Your task to perform on an android device: star an email in the gmail app Image 0: 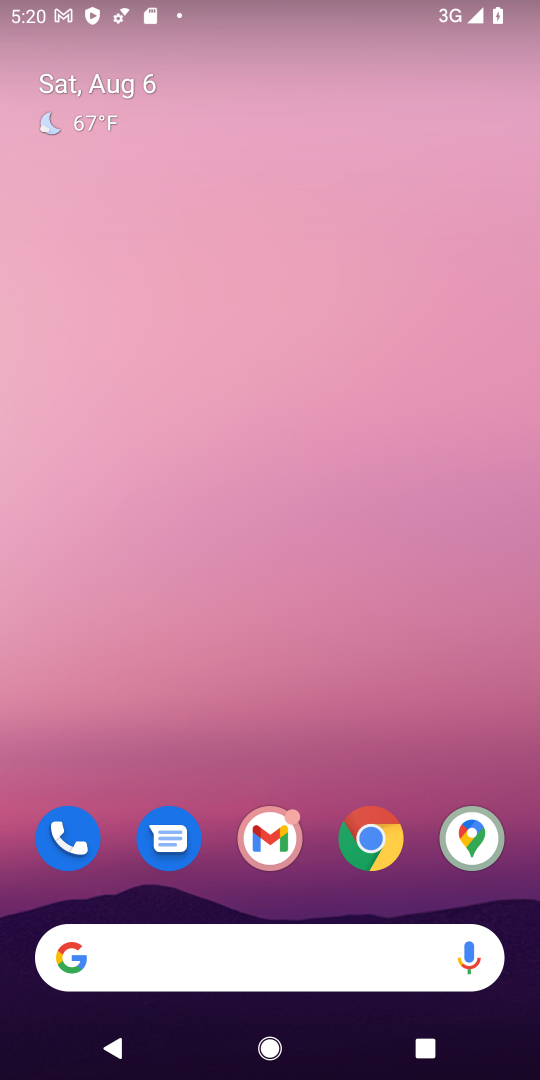
Step 0: click (266, 844)
Your task to perform on an android device: star an email in the gmail app Image 1: 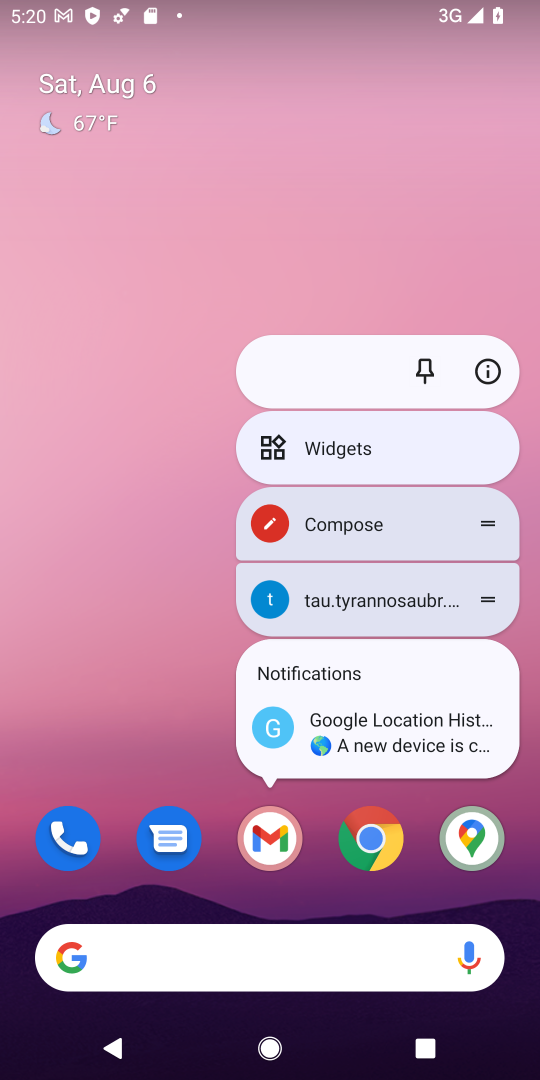
Step 1: drag from (147, 767) to (188, 50)
Your task to perform on an android device: star an email in the gmail app Image 2: 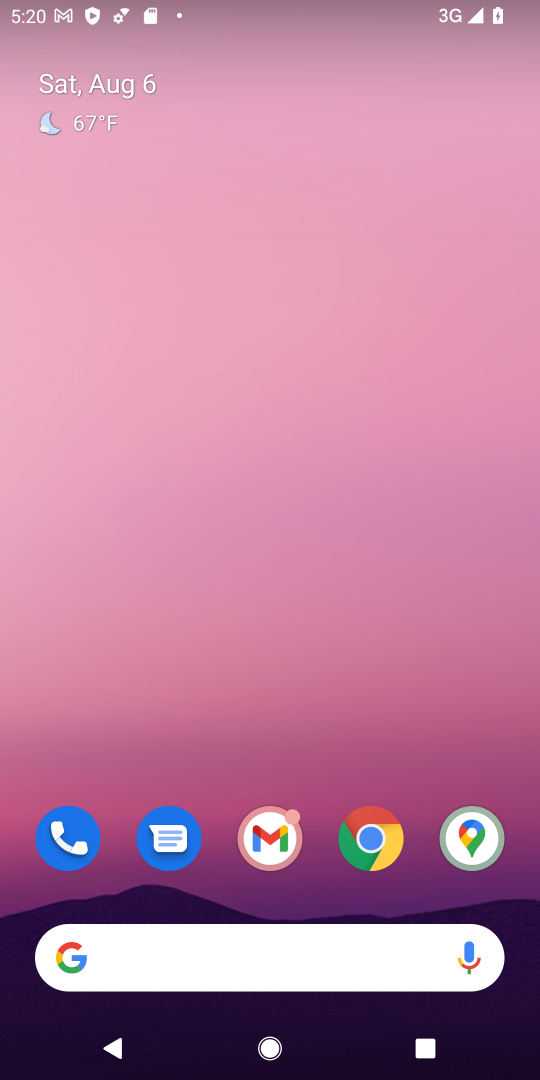
Step 2: drag from (326, 650) to (314, 13)
Your task to perform on an android device: star an email in the gmail app Image 3: 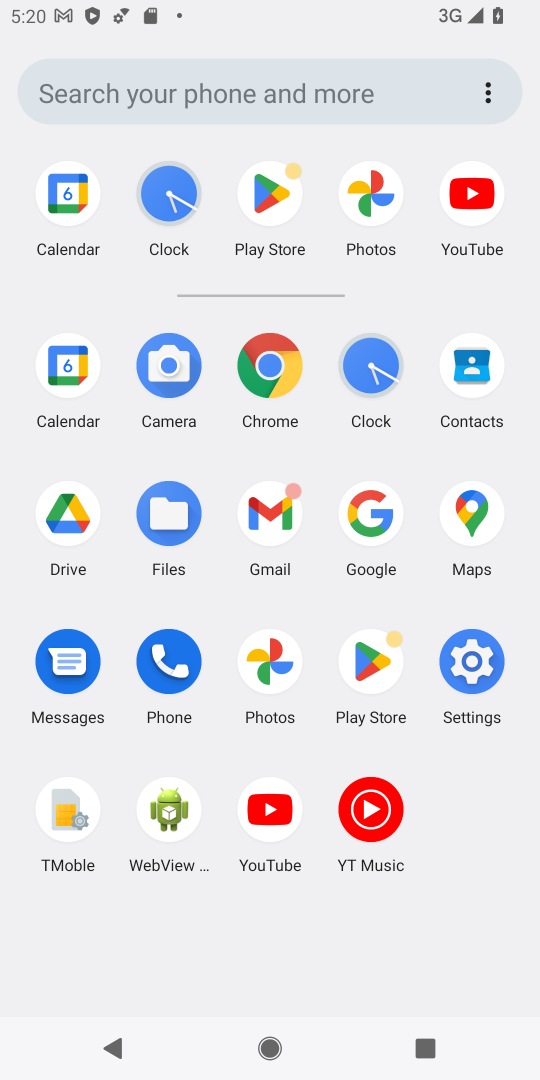
Step 3: click (282, 499)
Your task to perform on an android device: star an email in the gmail app Image 4: 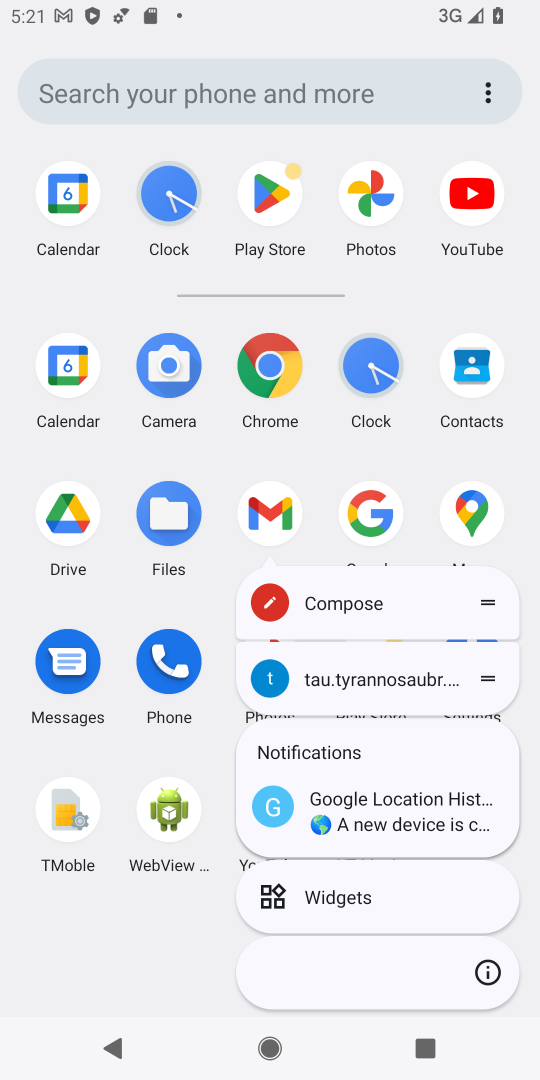
Step 4: click (297, 515)
Your task to perform on an android device: star an email in the gmail app Image 5: 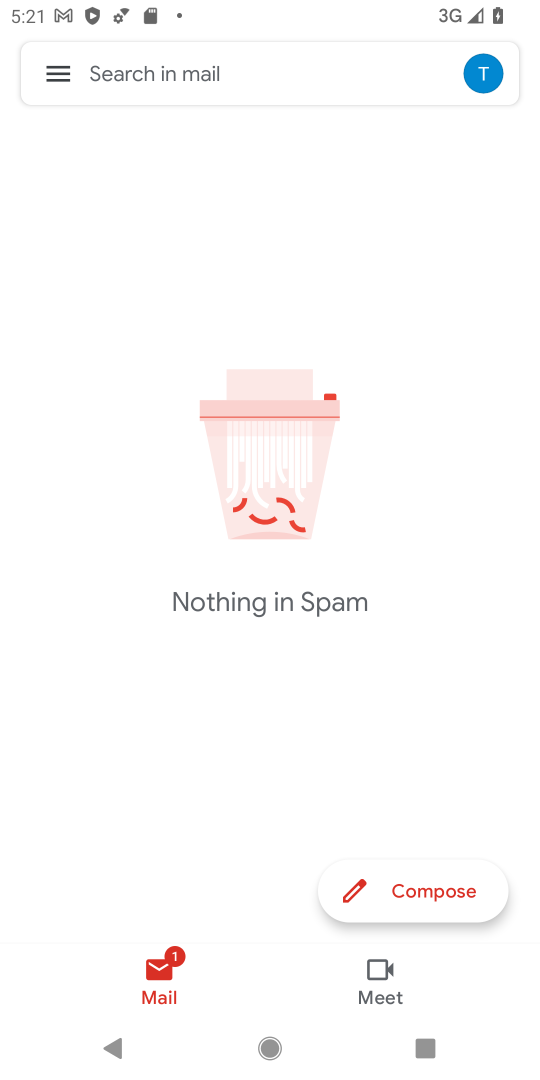
Step 5: click (72, 93)
Your task to perform on an android device: star an email in the gmail app Image 6: 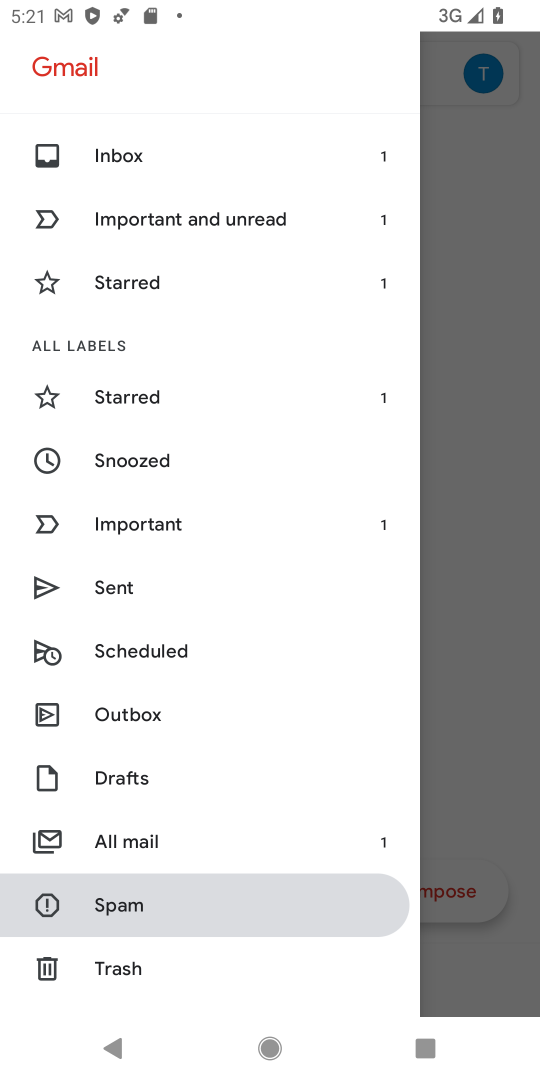
Step 6: click (306, 159)
Your task to perform on an android device: star an email in the gmail app Image 7: 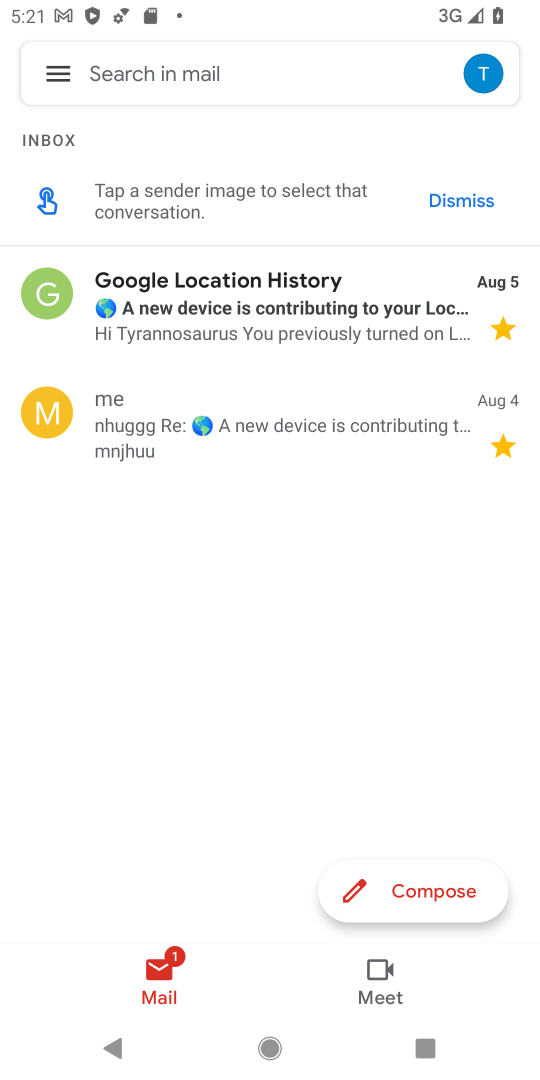
Step 7: click (326, 419)
Your task to perform on an android device: star an email in the gmail app Image 8: 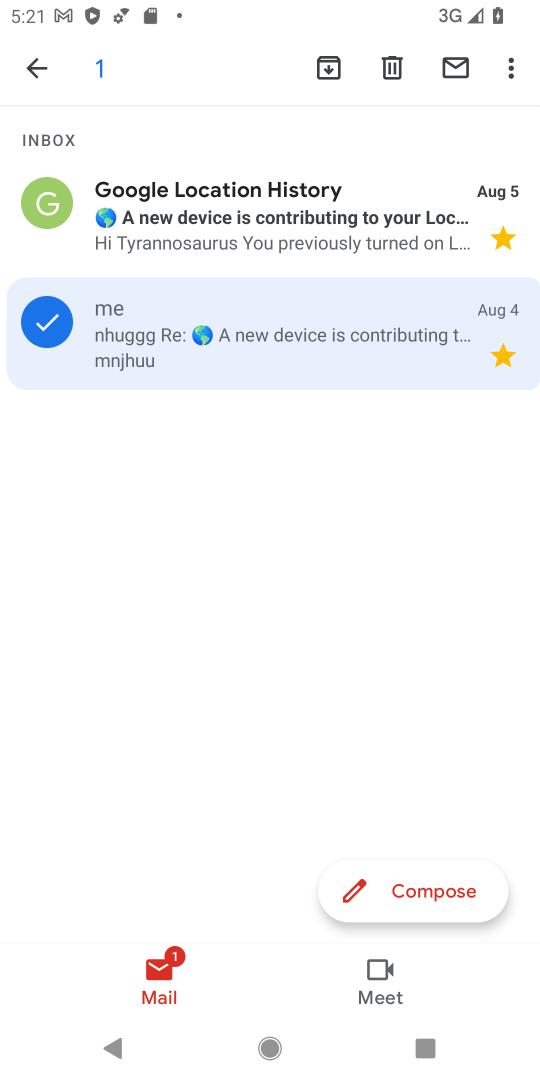
Step 8: click (512, 73)
Your task to perform on an android device: star an email in the gmail app Image 9: 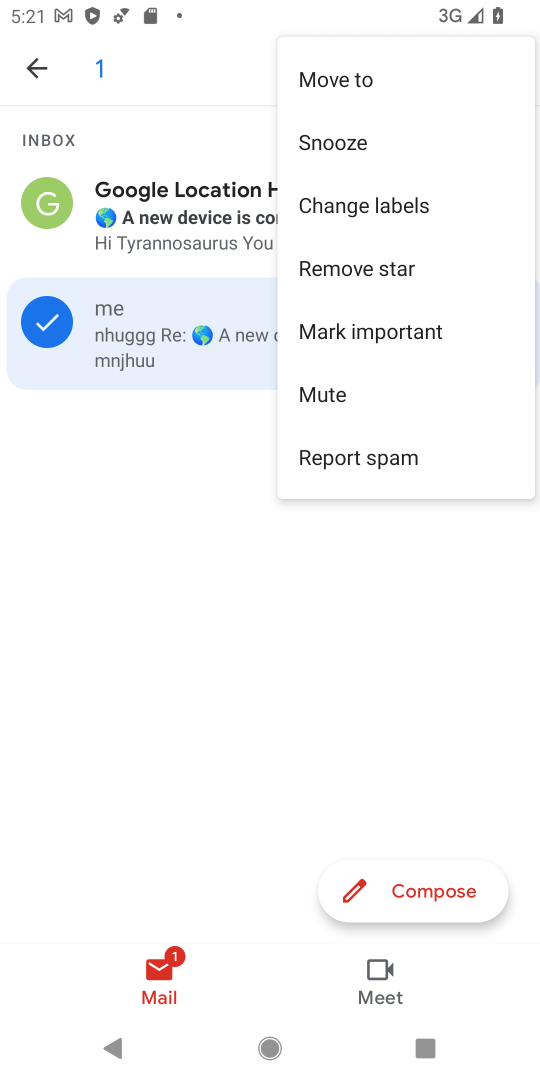
Step 9: click (293, 633)
Your task to perform on an android device: star an email in the gmail app Image 10: 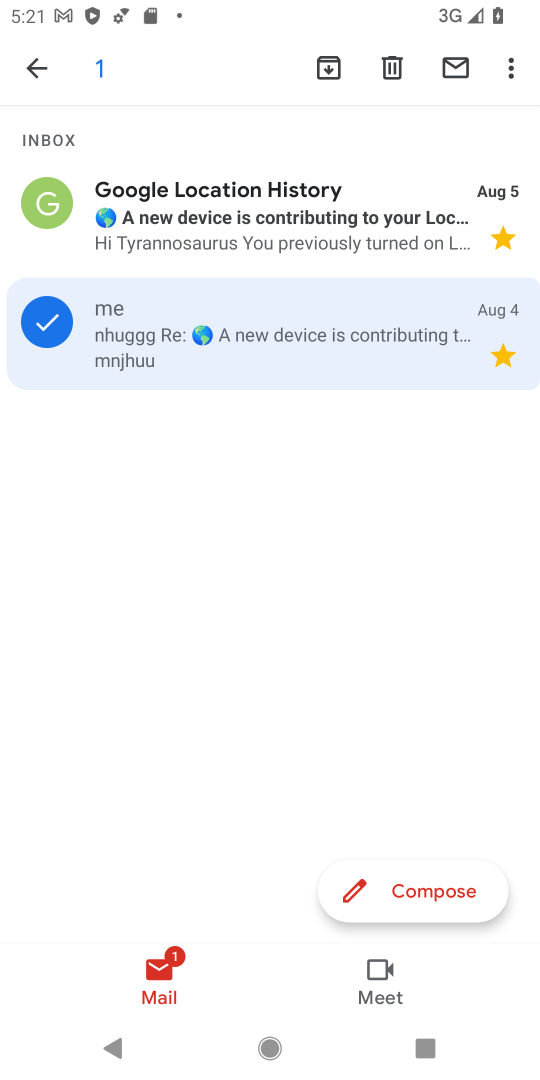
Step 10: click (505, 358)
Your task to perform on an android device: star an email in the gmail app Image 11: 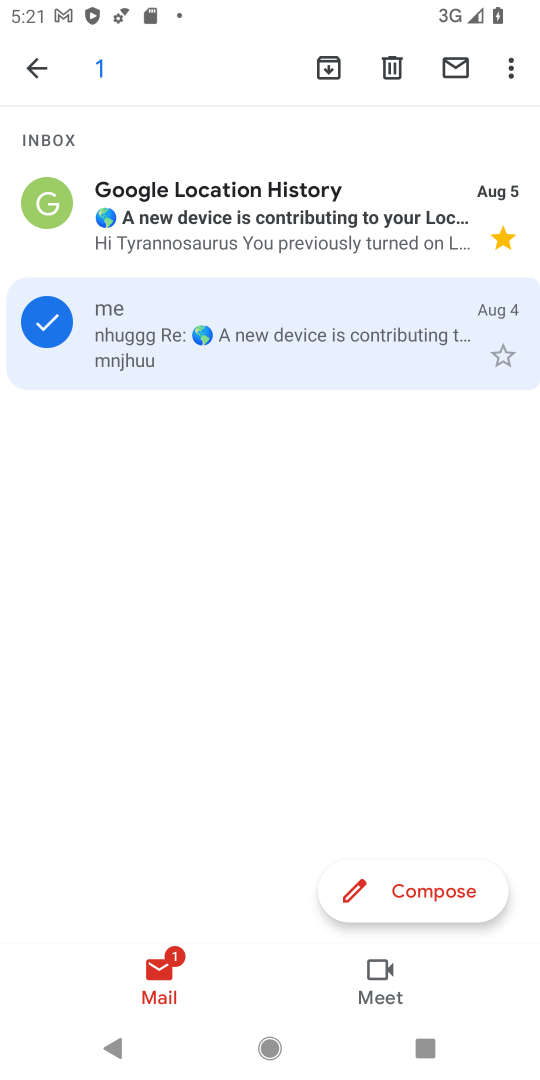
Step 11: click (505, 358)
Your task to perform on an android device: star an email in the gmail app Image 12: 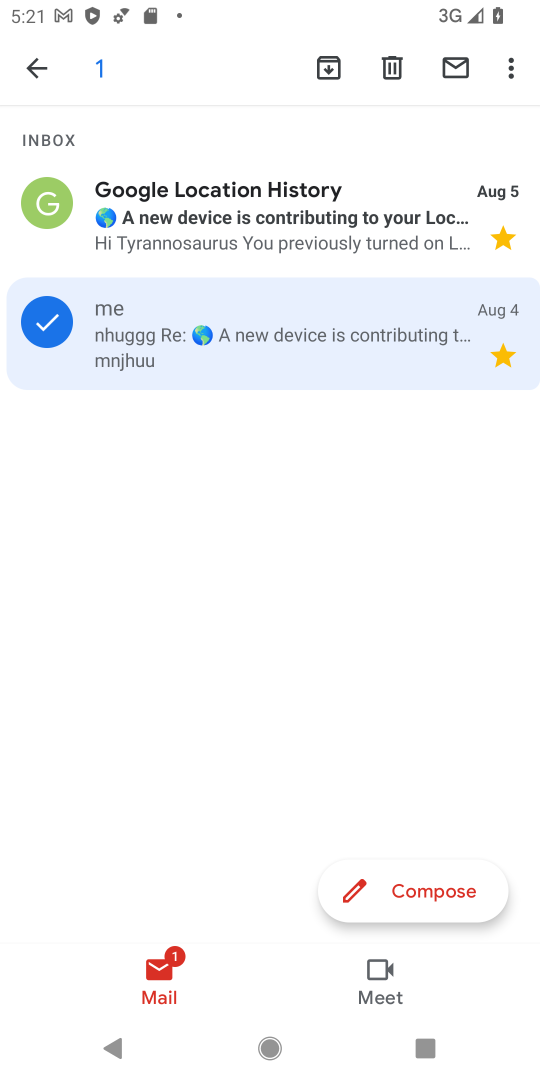
Step 12: task complete